Your task to perform on an android device: turn off location Image 0: 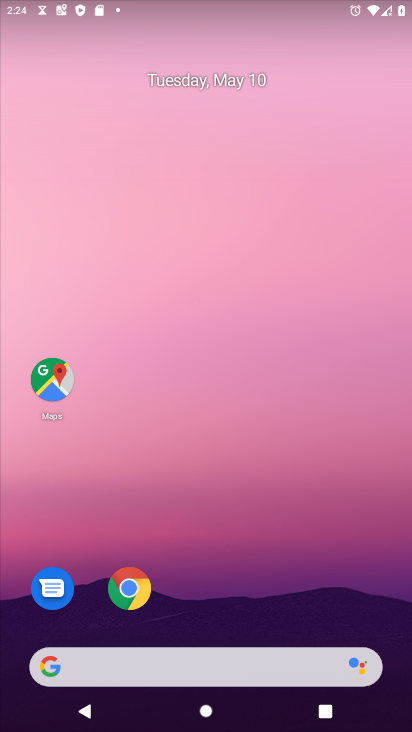
Step 0: drag from (208, 567) to (222, 175)
Your task to perform on an android device: turn off location Image 1: 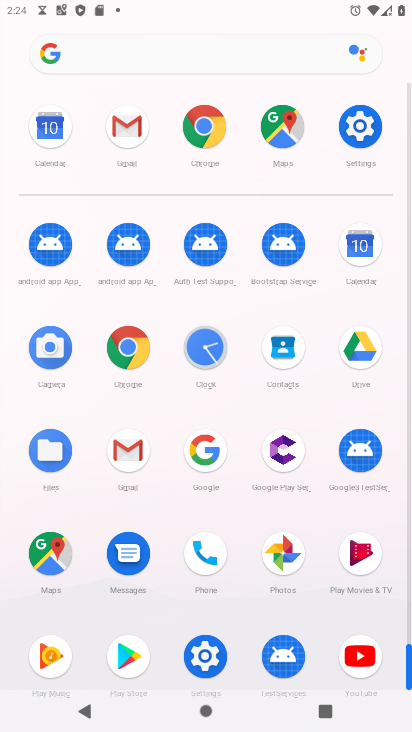
Step 1: click (352, 123)
Your task to perform on an android device: turn off location Image 2: 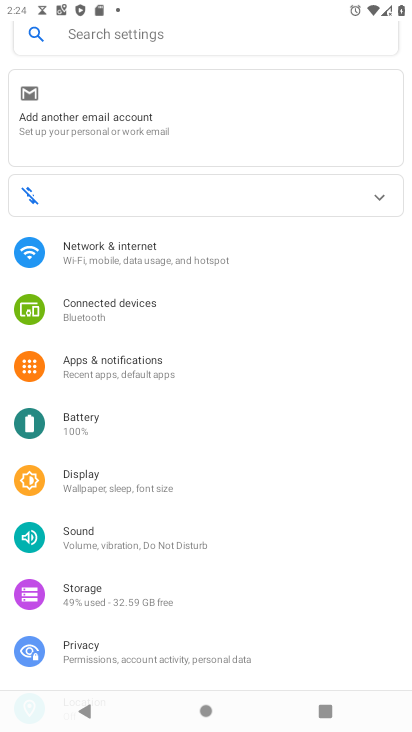
Step 2: drag from (134, 602) to (184, 347)
Your task to perform on an android device: turn off location Image 3: 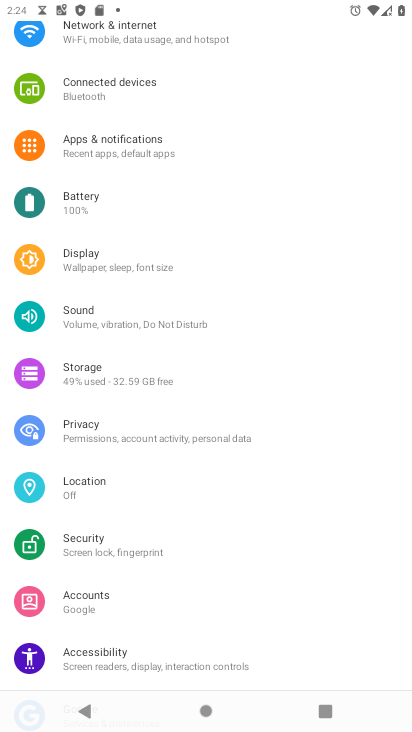
Step 3: click (115, 482)
Your task to perform on an android device: turn off location Image 4: 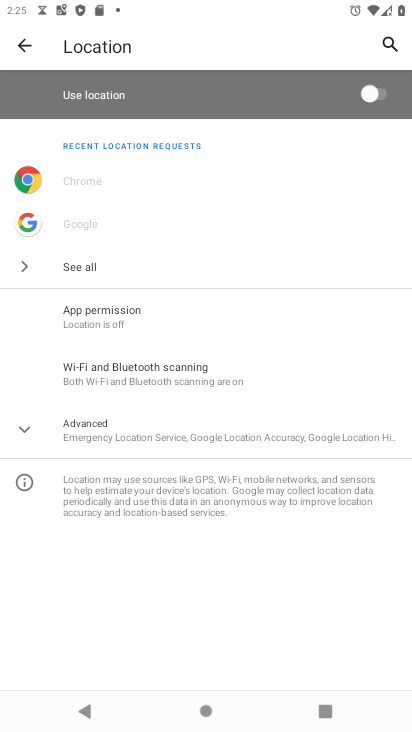
Step 4: task complete